Your task to perform on an android device: toggle show notifications on the lock screen Image 0: 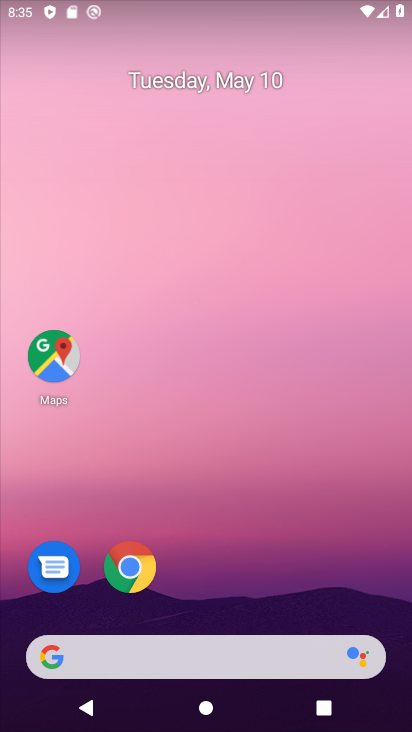
Step 0: drag from (343, 176) to (317, 22)
Your task to perform on an android device: toggle show notifications on the lock screen Image 1: 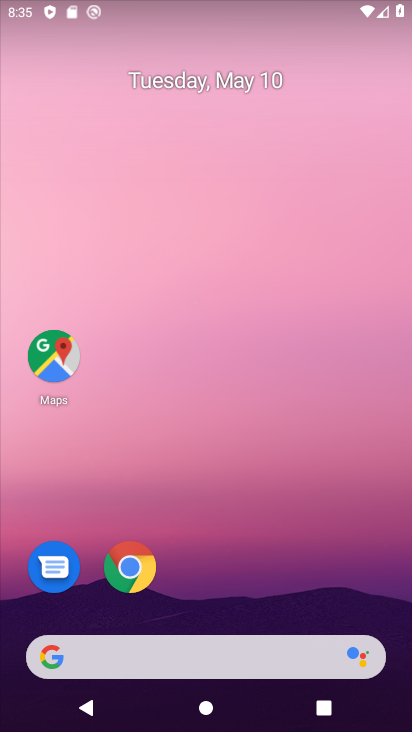
Step 1: drag from (305, 604) to (247, 58)
Your task to perform on an android device: toggle show notifications on the lock screen Image 2: 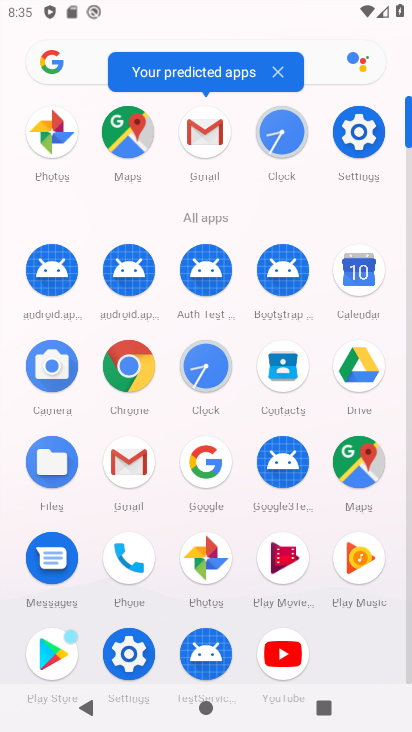
Step 2: click (358, 130)
Your task to perform on an android device: toggle show notifications on the lock screen Image 3: 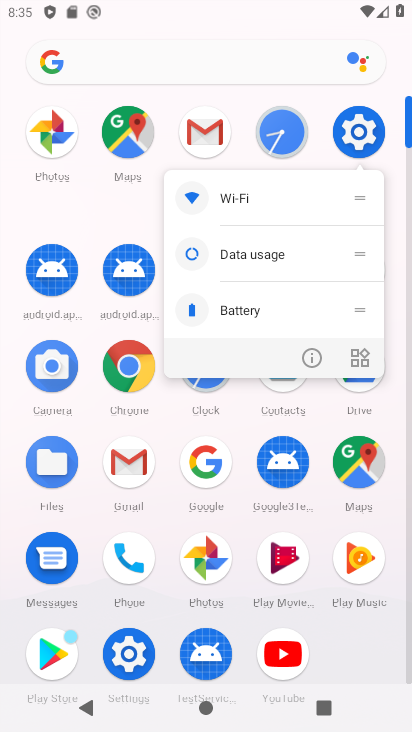
Step 3: click (369, 117)
Your task to perform on an android device: toggle show notifications on the lock screen Image 4: 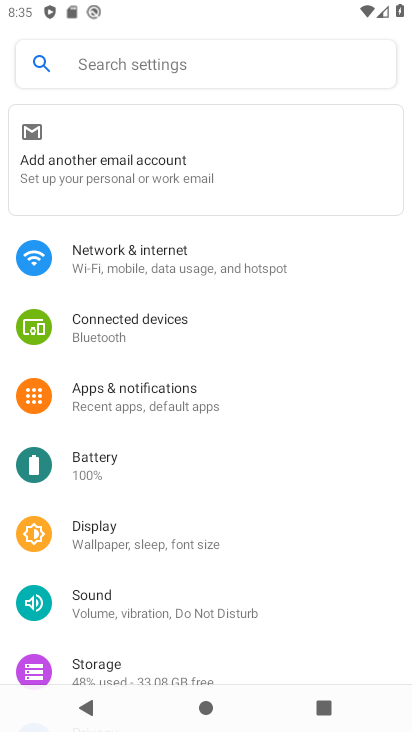
Step 4: click (93, 269)
Your task to perform on an android device: toggle show notifications on the lock screen Image 5: 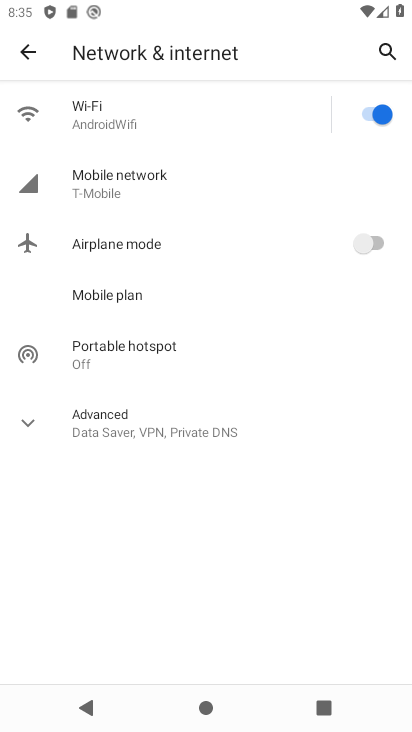
Step 5: click (122, 422)
Your task to perform on an android device: toggle show notifications on the lock screen Image 6: 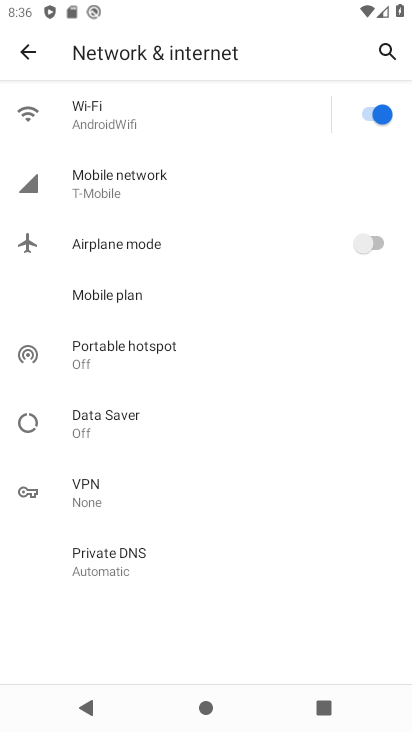
Step 6: click (23, 67)
Your task to perform on an android device: toggle show notifications on the lock screen Image 7: 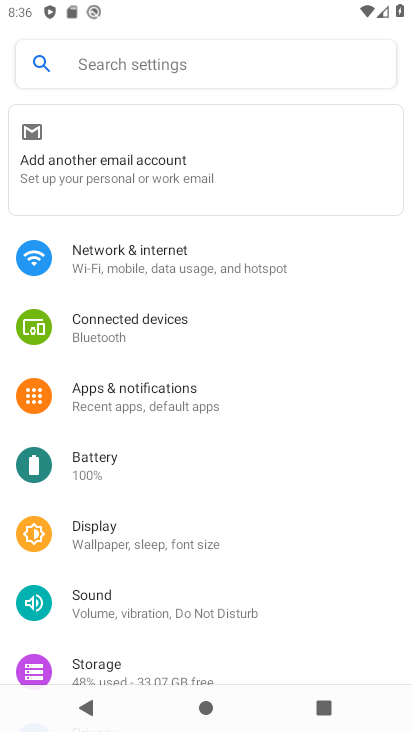
Step 7: click (184, 422)
Your task to perform on an android device: toggle show notifications on the lock screen Image 8: 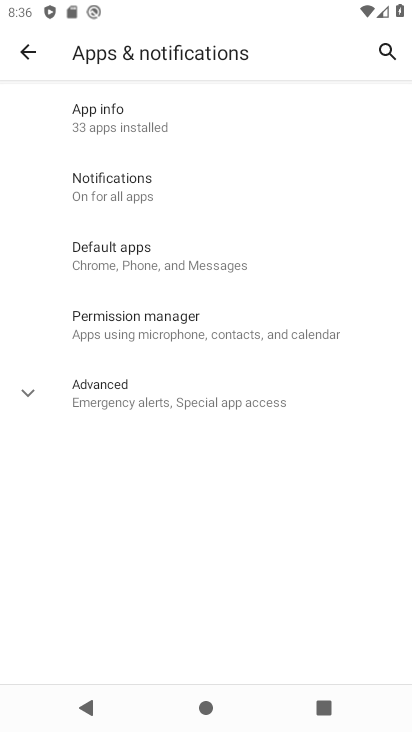
Step 8: click (99, 193)
Your task to perform on an android device: toggle show notifications on the lock screen Image 9: 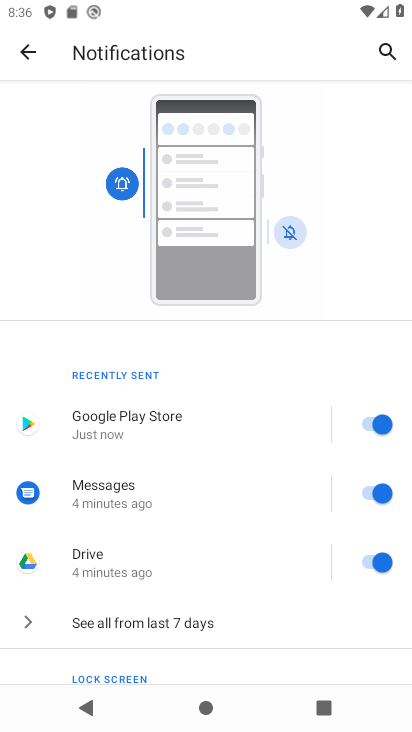
Step 9: drag from (214, 574) to (135, 188)
Your task to perform on an android device: toggle show notifications on the lock screen Image 10: 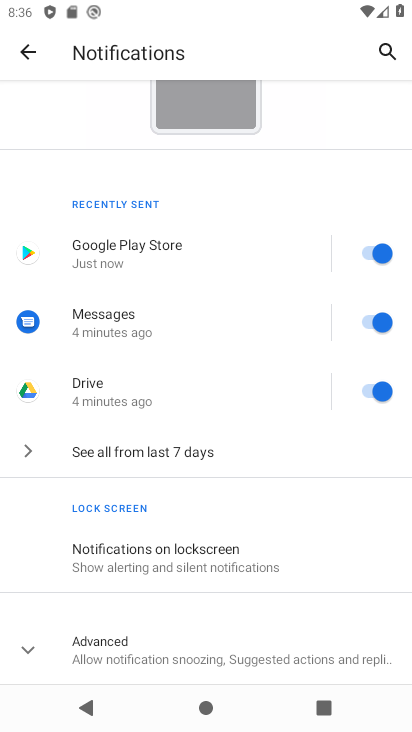
Step 10: drag from (216, 599) to (186, 276)
Your task to perform on an android device: toggle show notifications on the lock screen Image 11: 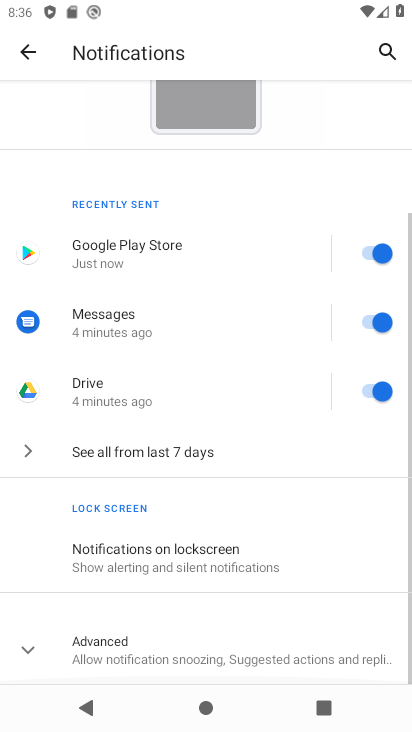
Step 11: click (199, 555)
Your task to perform on an android device: toggle show notifications on the lock screen Image 12: 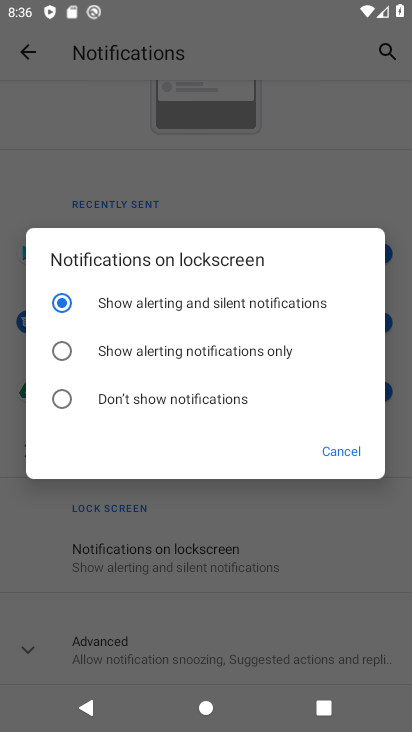
Step 12: click (73, 343)
Your task to perform on an android device: toggle show notifications on the lock screen Image 13: 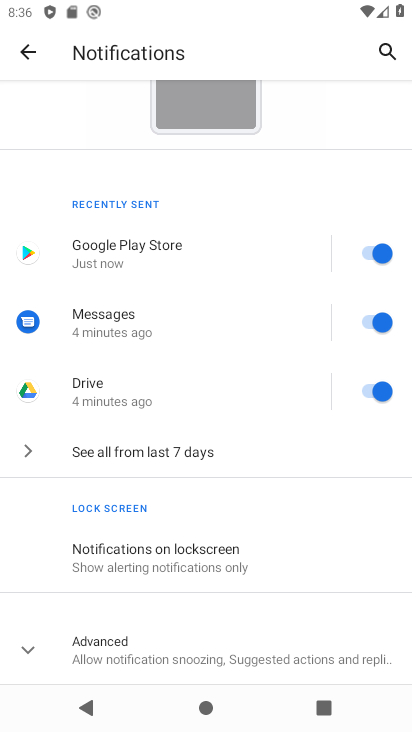
Step 13: task complete